Your task to perform on an android device: turn notification dots on Image 0: 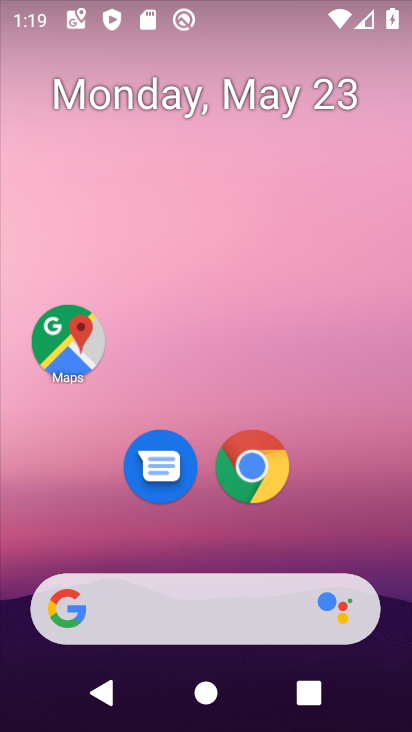
Step 0: drag from (329, 517) to (239, 41)
Your task to perform on an android device: turn notification dots on Image 1: 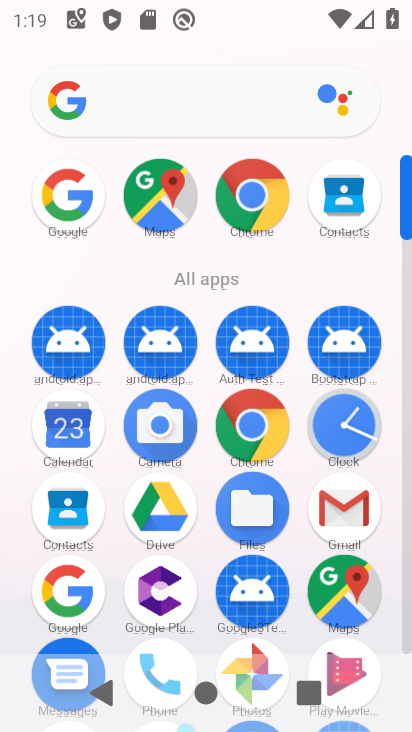
Step 1: drag from (117, 553) to (112, 328)
Your task to perform on an android device: turn notification dots on Image 2: 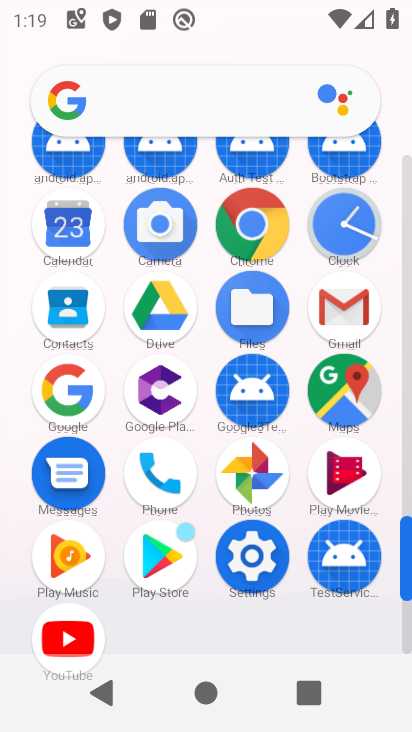
Step 2: click (254, 554)
Your task to perform on an android device: turn notification dots on Image 3: 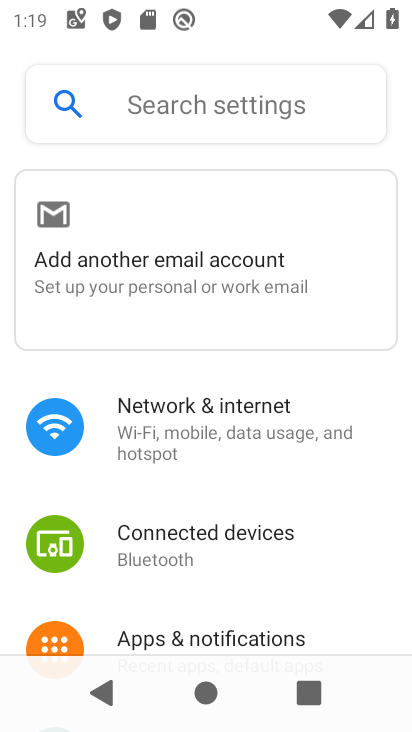
Step 3: drag from (198, 582) to (273, 458)
Your task to perform on an android device: turn notification dots on Image 4: 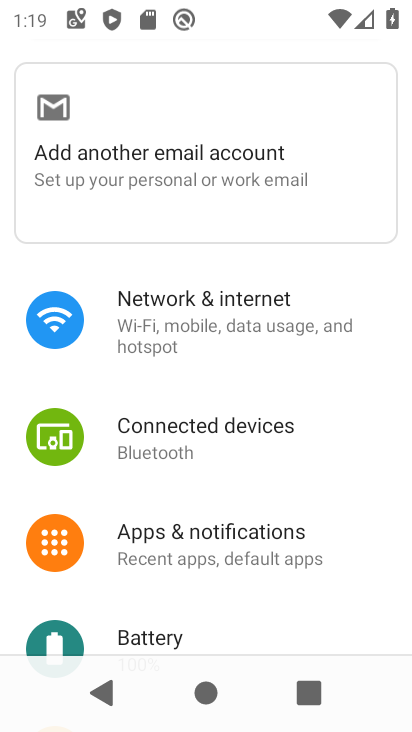
Step 4: click (219, 558)
Your task to perform on an android device: turn notification dots on Image 5: 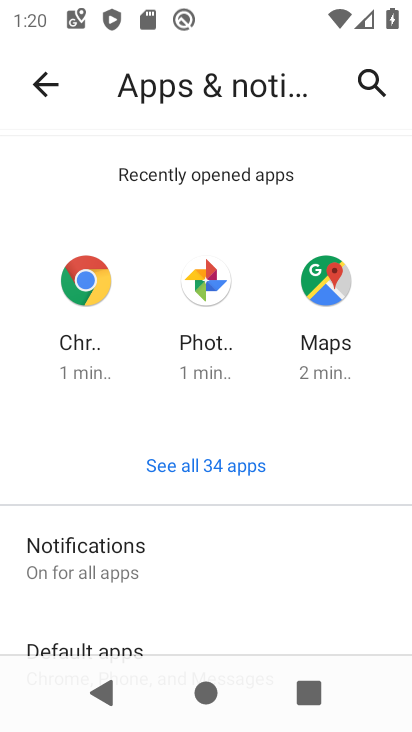
Step 5: click (105, 546)
Your task to perform on an android device: turn notification dots on Image 6: 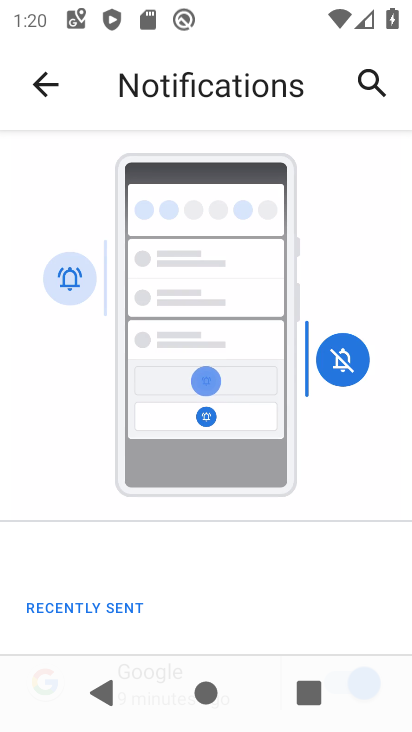
Step 6: drag from (169, 563) to (232, 421)
Your task to perform on an android device: turn notification dots on Image 7: 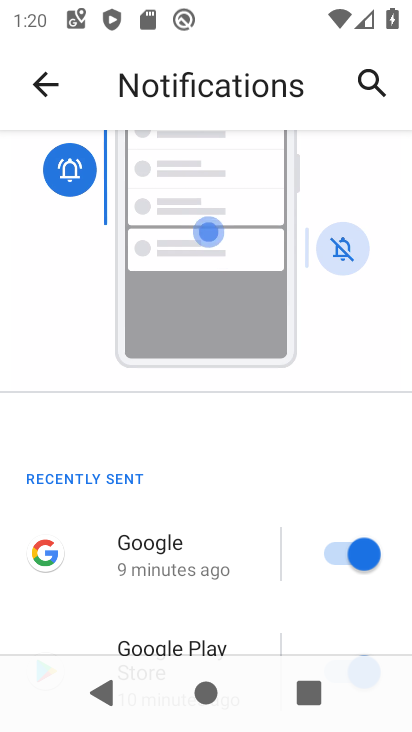
Step 7: drag from (168, 597) to (191, 467)
Your task to perform on an android device: turn notification dots on Image 8: 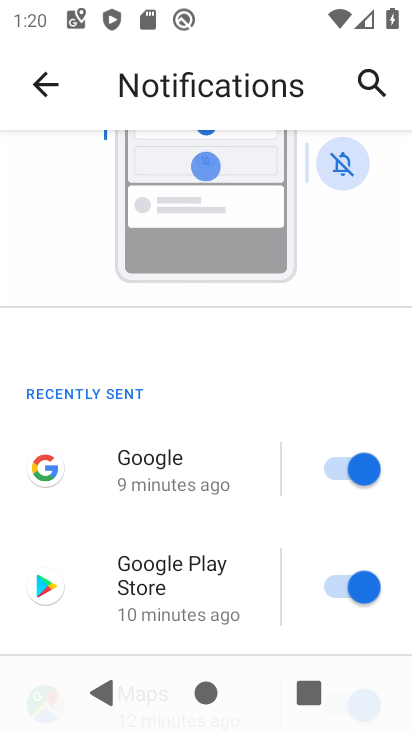
Step 8: drag from (163, 618) to (227, 497)
Your task to perform on an android device: turn notification dots on Image 9: 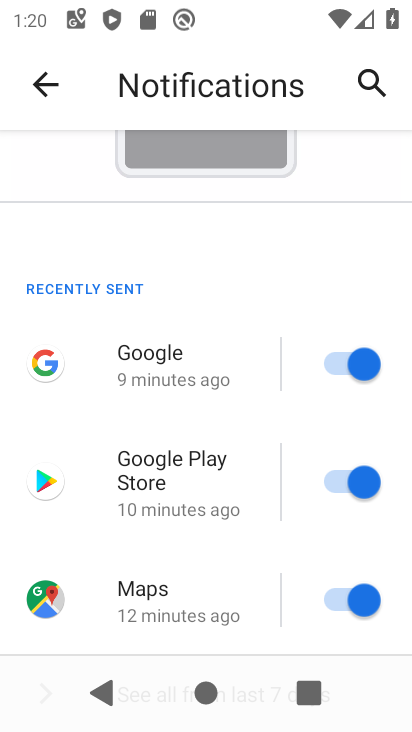
Step 9: drag from (165, 560) to (234, 412)
Your task to perform on an android device: turn notification dots on Image 10: 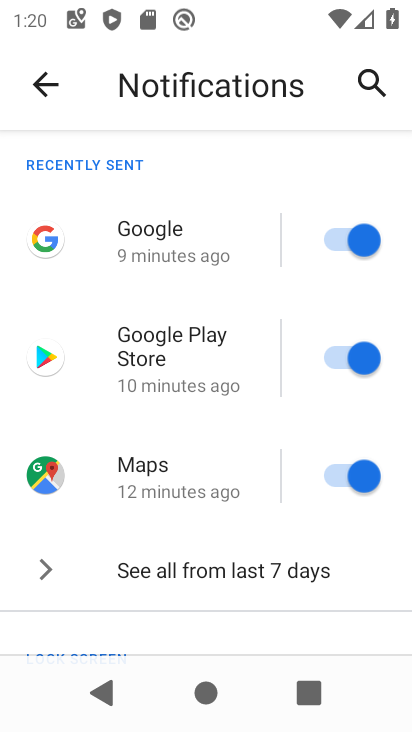
Step 10: drag from (148, 534) to (200, 405)
Your task to perform on an android device: turn notification dots on Image 11: 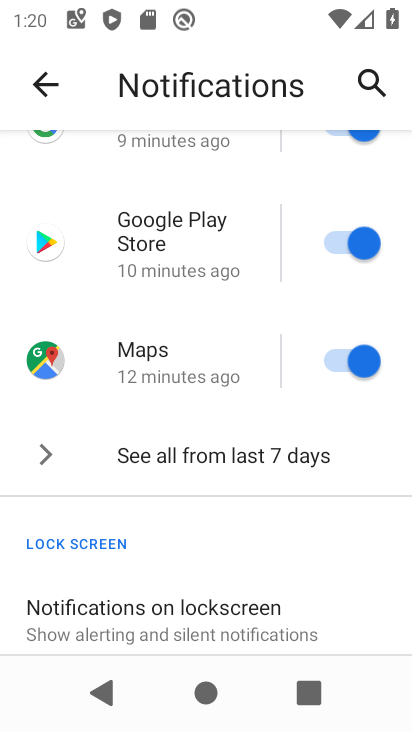
Step 11: drag from (164, 569) to (237, 422)
Your task to perform on an android device: turn notification dots on Image 12: 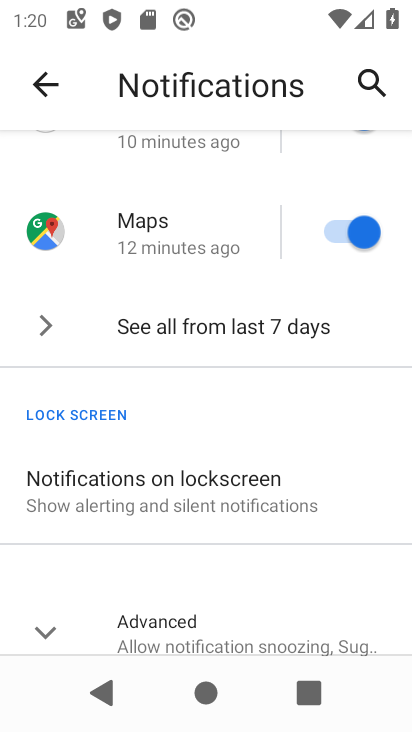
Step 12: drag from (153, 596) to (201, 494)
Your task to perform on an android device: turn notification dots on Image 13: 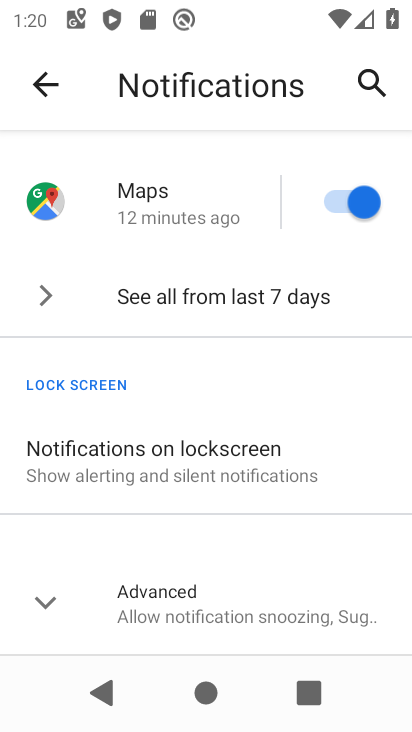
Step 13: click (185, 604)
Your task to perform on an android device: turn notification dots on Image 14: 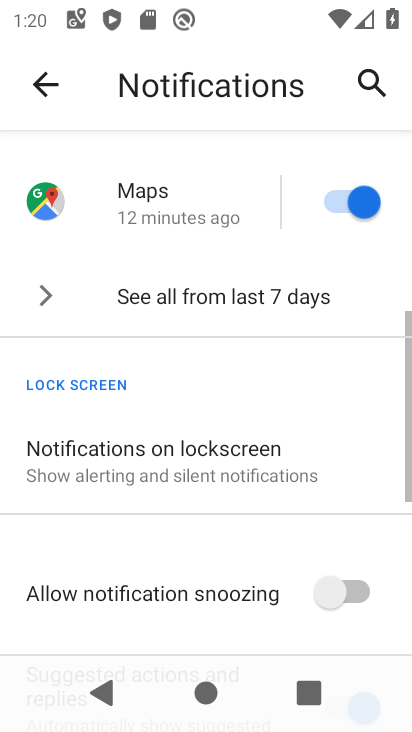
Step 14: task complete